Your task to perform on an android device: Add "panasonic triple a" to the cart on target.com Image 0: 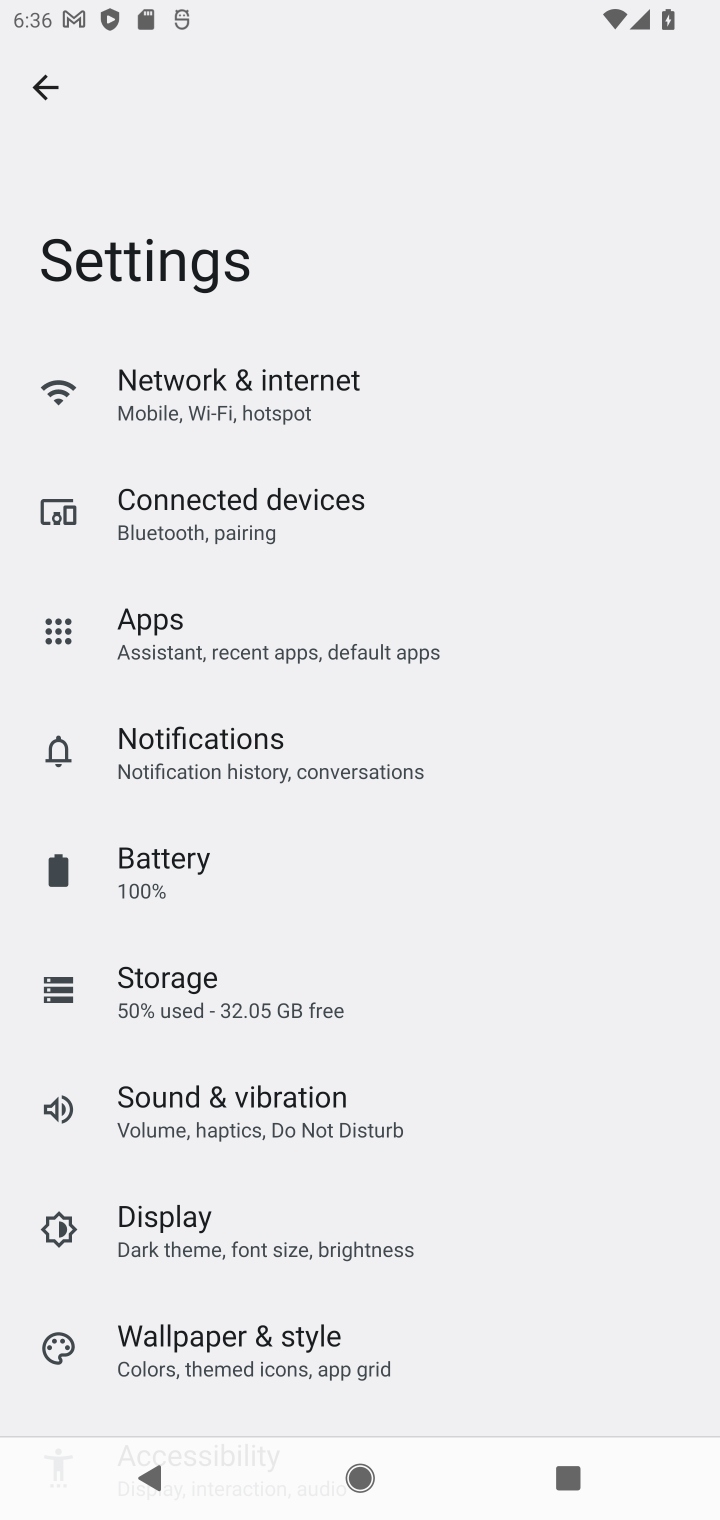
Step 0: press home button
Your task to perform on an android device: Add "panasonic triple a" to the cart on target.com Image 1: 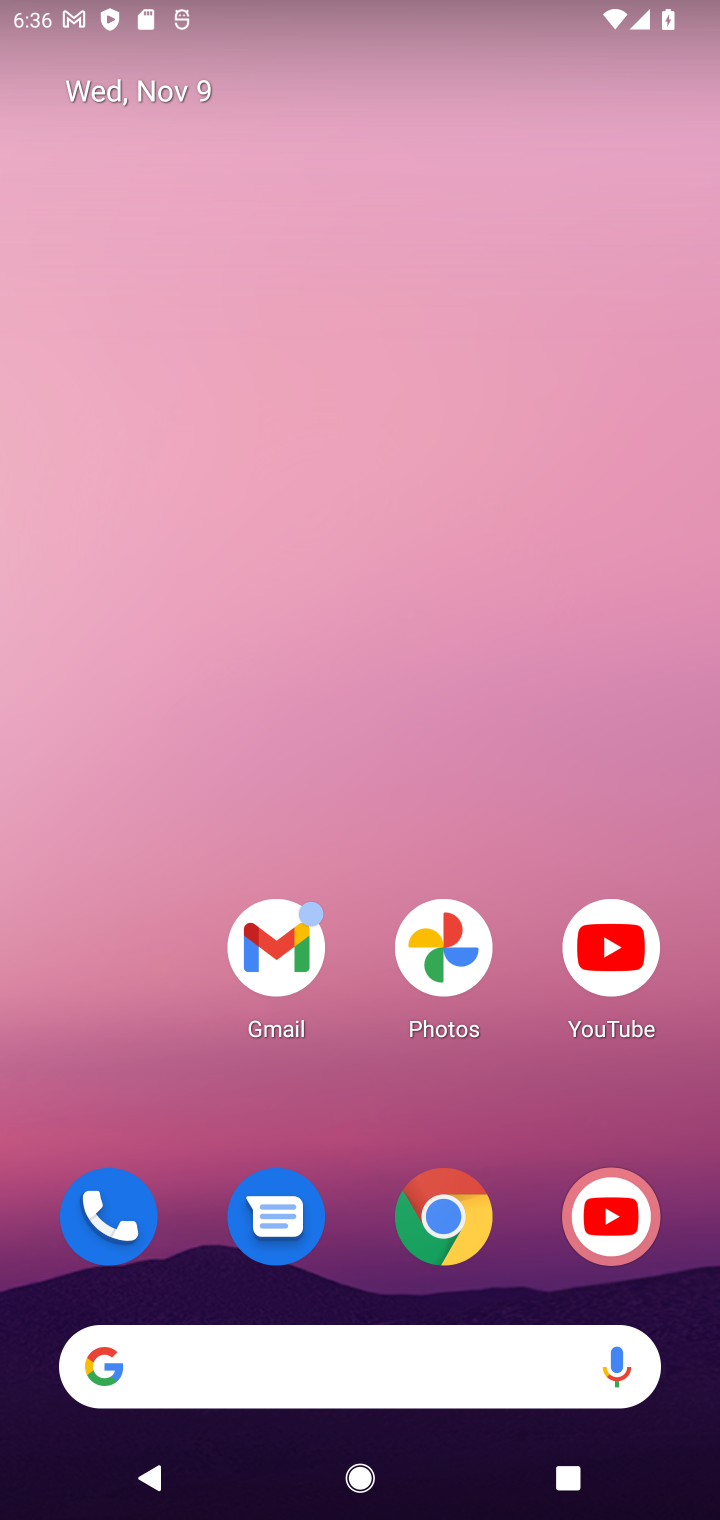
Step 1: drag from (364, 1133) to (366, 223)
Your task to perform on an android device: Add "panasonic triple a" to the cart on target.com Image 2: 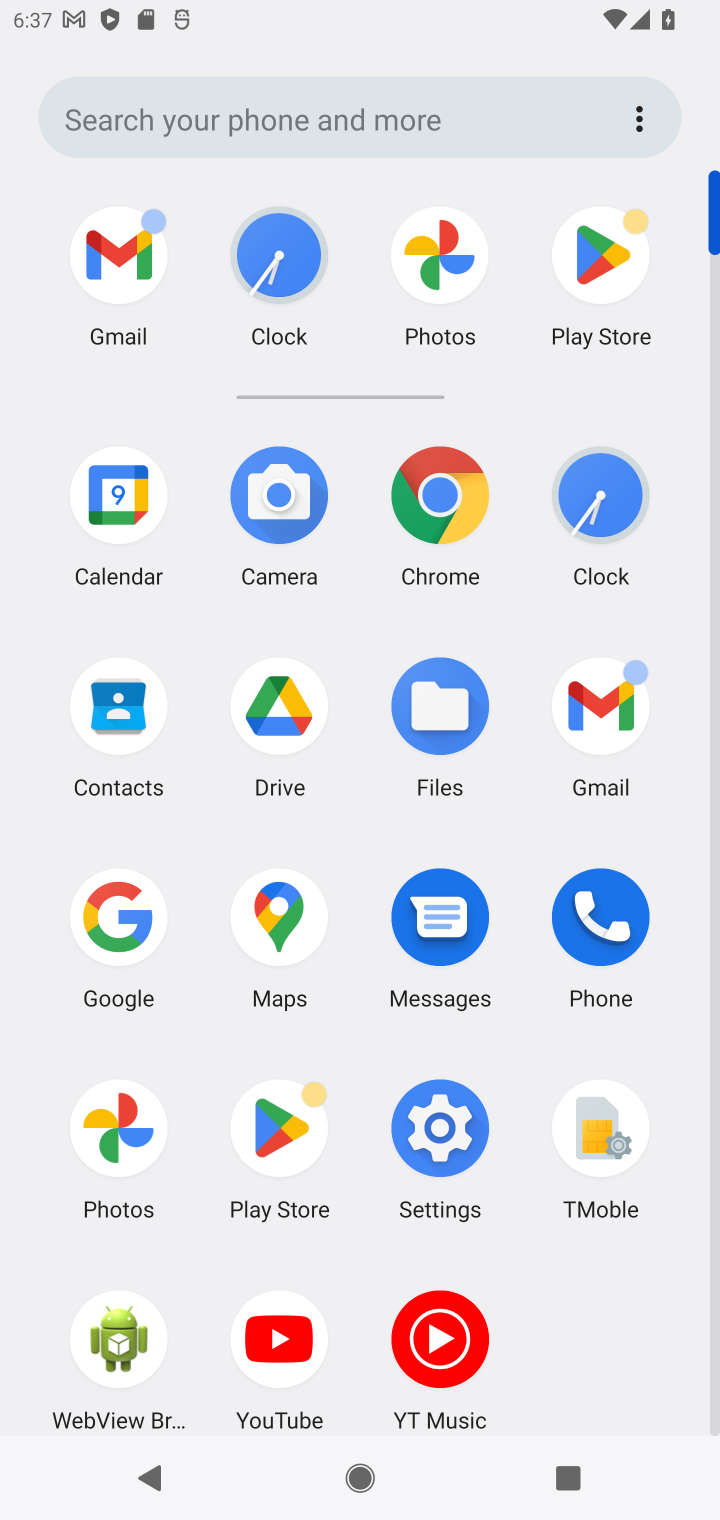
Step 2: click (446, 499)
Your task to perform on an android device: Add "panasonic triple a" to the cart on target.com Image 3: 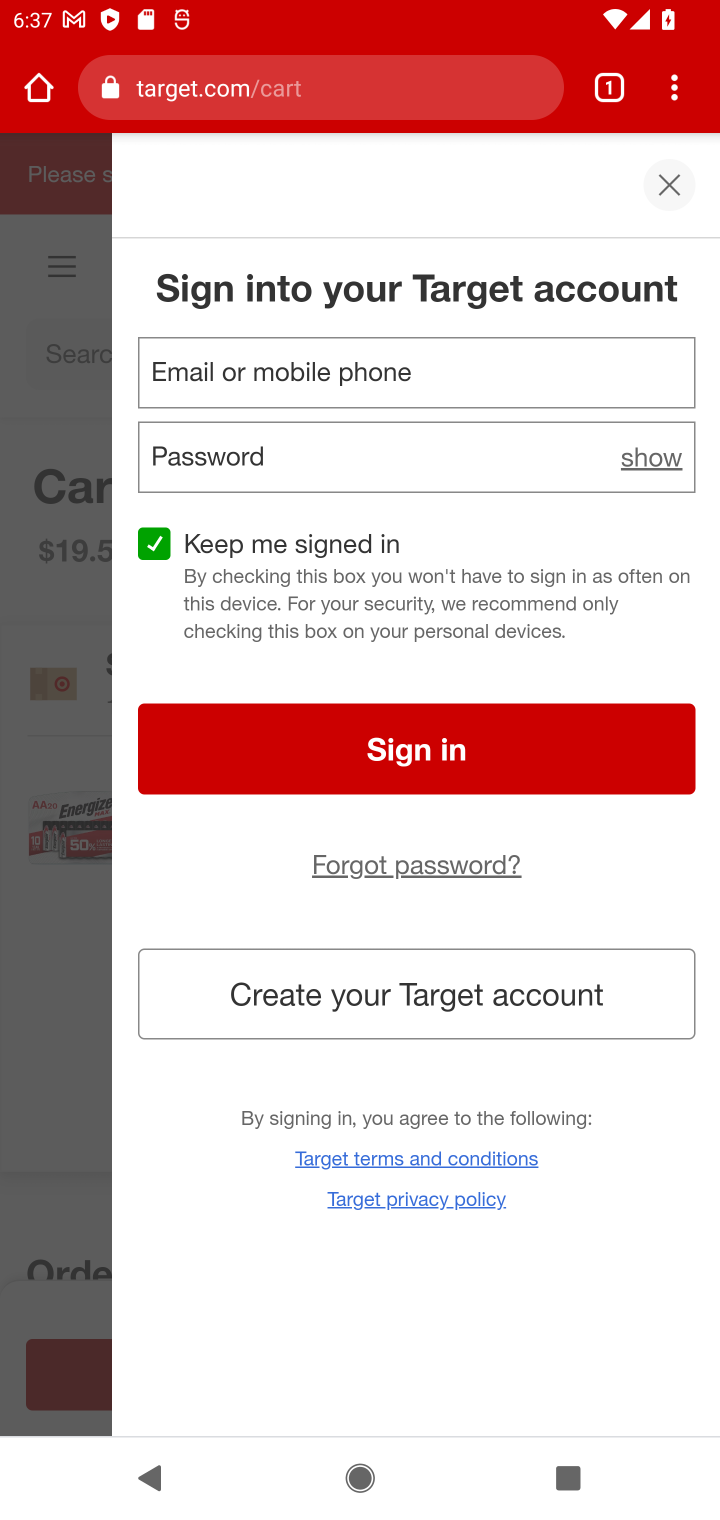
Step 3: click (434, 88)
Your task to perform on an android device: Add "panasonic triple a" to the cart on target.com Image 4: 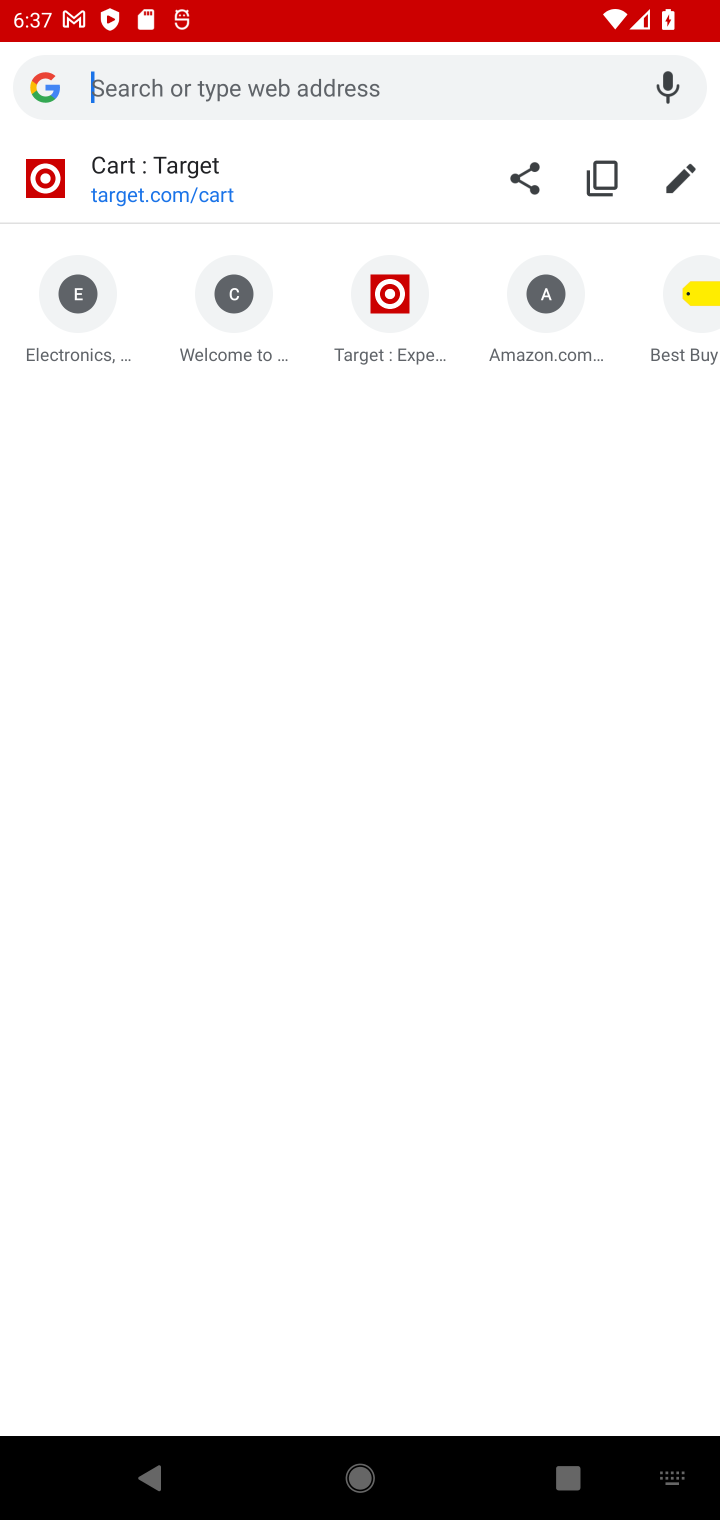
Step 4: type "target.com"
Your task to perform on an android device: Add "panasonic triple a" to the cart on target.com Image 5: 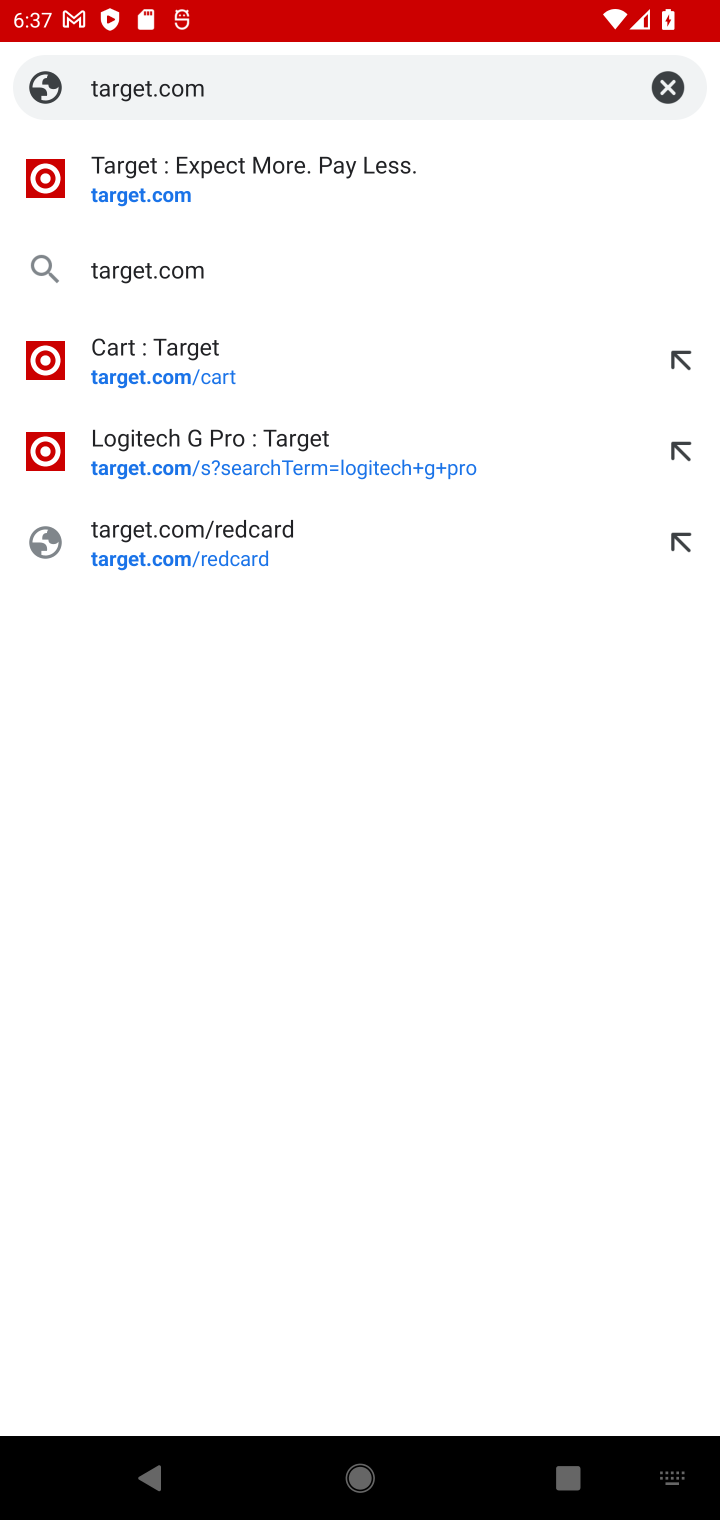
Step 5: press enter
Your task to perform on an android device: Add "panasonic triple a" to the cart on target.com Image 6: 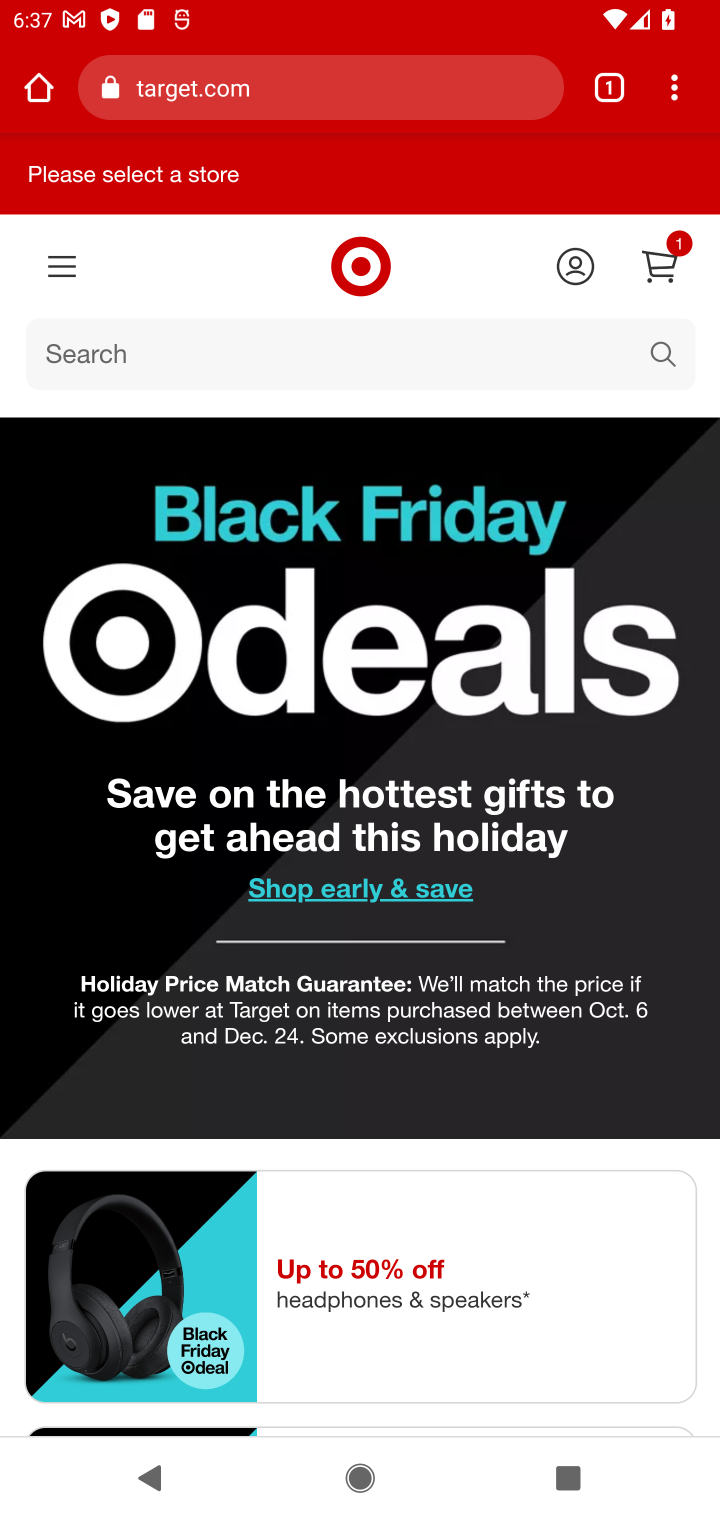
Step 6: click (458, 352)
Your task to perform on an android device: Add "panasonic triple a" to the cart on target.com Image 7: 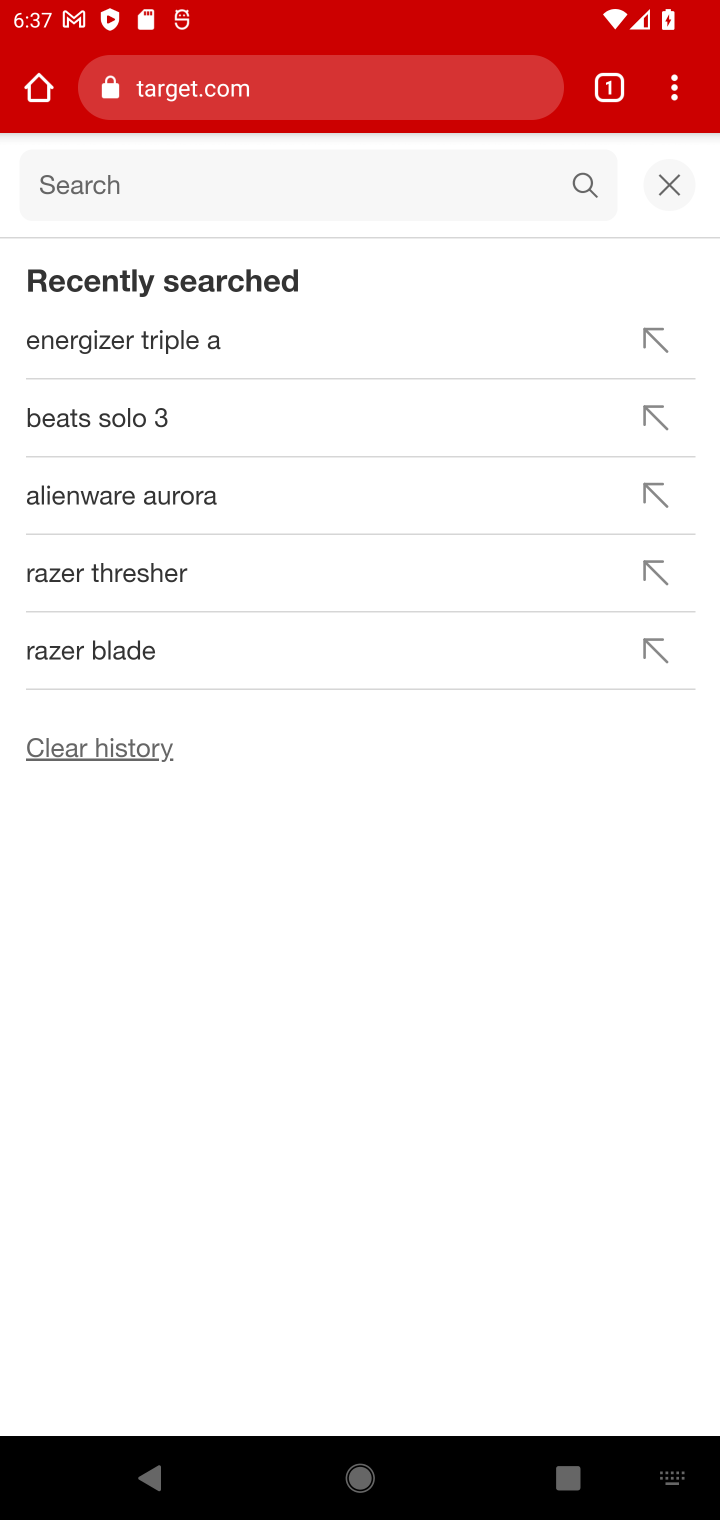
Step 7: type "panasonic triple a"
Your task to perform on an android device: Add "panasonic triple a" to the cart on target.com Image 8: 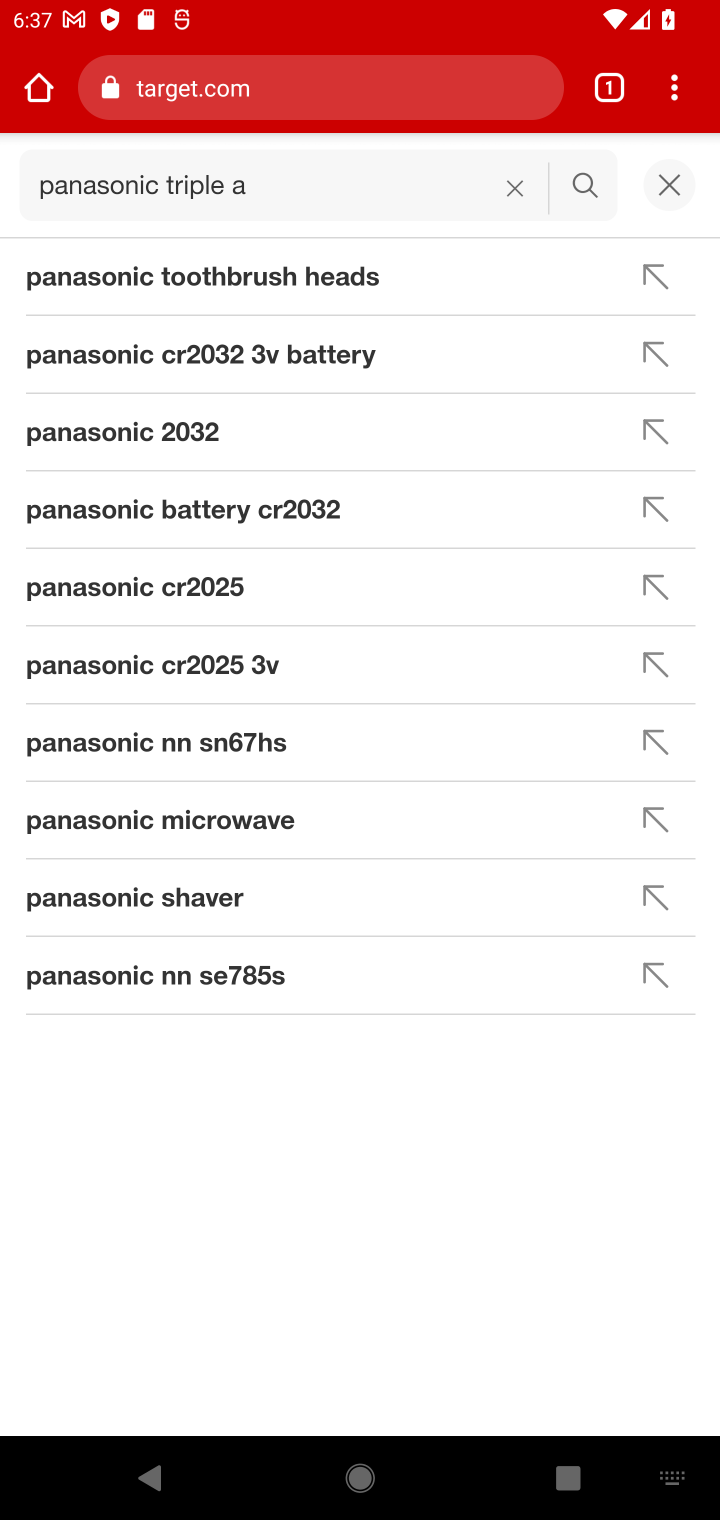
Step 8: press enter
Your task to perform on an android device: Add "panasonic triple a" to the cart on target.com Image 9: 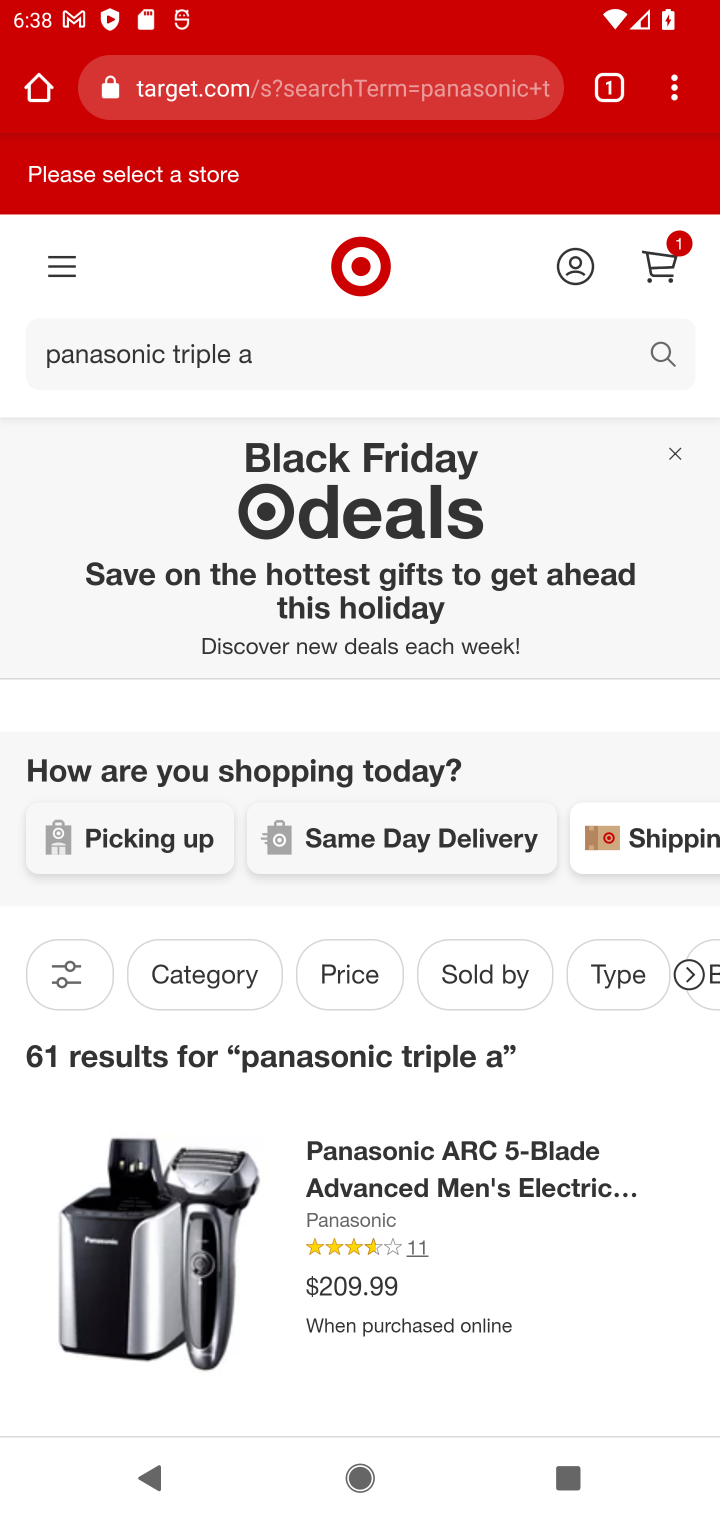
Step 9: drag from (506, 1129) to (411, 449)
Your task to perform on an android device: Add "panasonic triple a" to the cart on target.com Image 10: 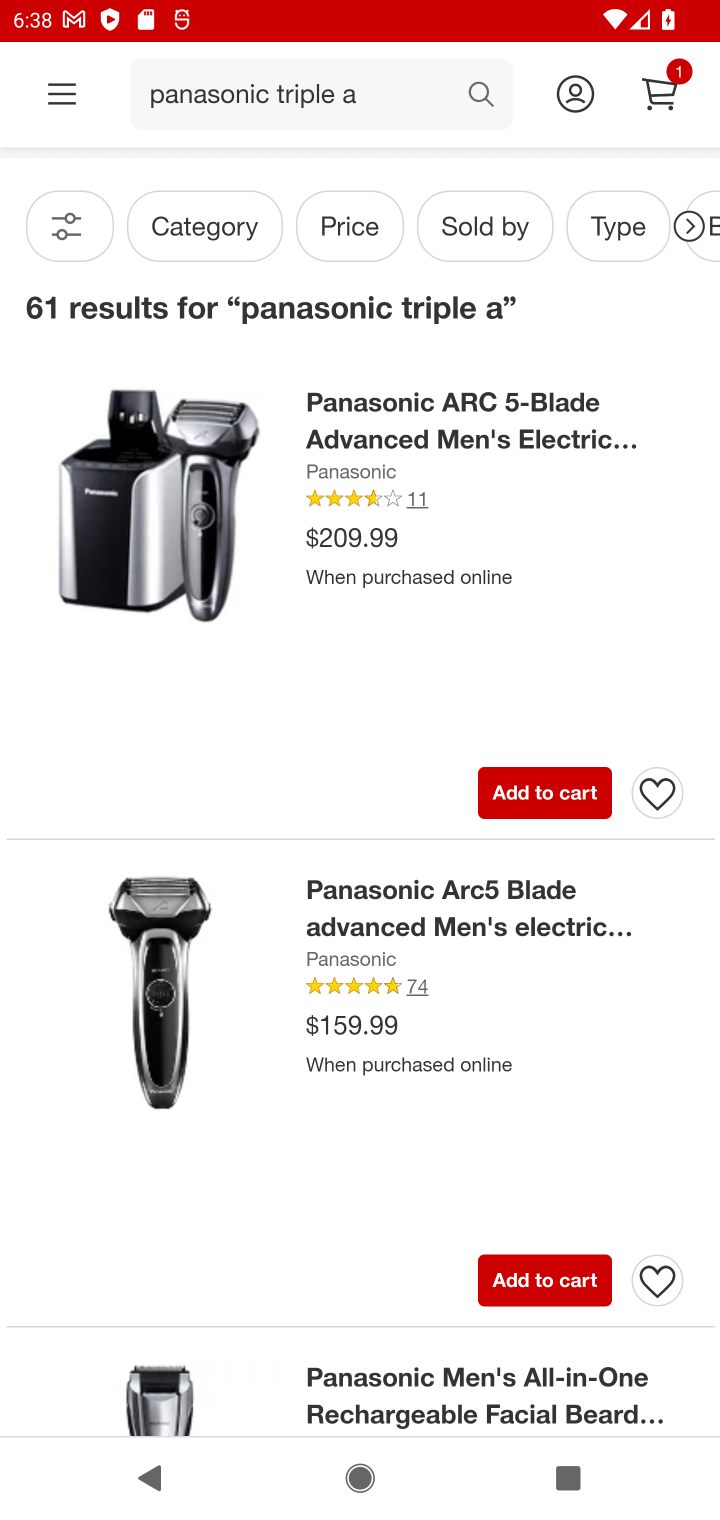
Step 10: click (365, 1084)
Your task to perform on an android device: Add "panasonic triple a" to the cart on target.com Image 11: 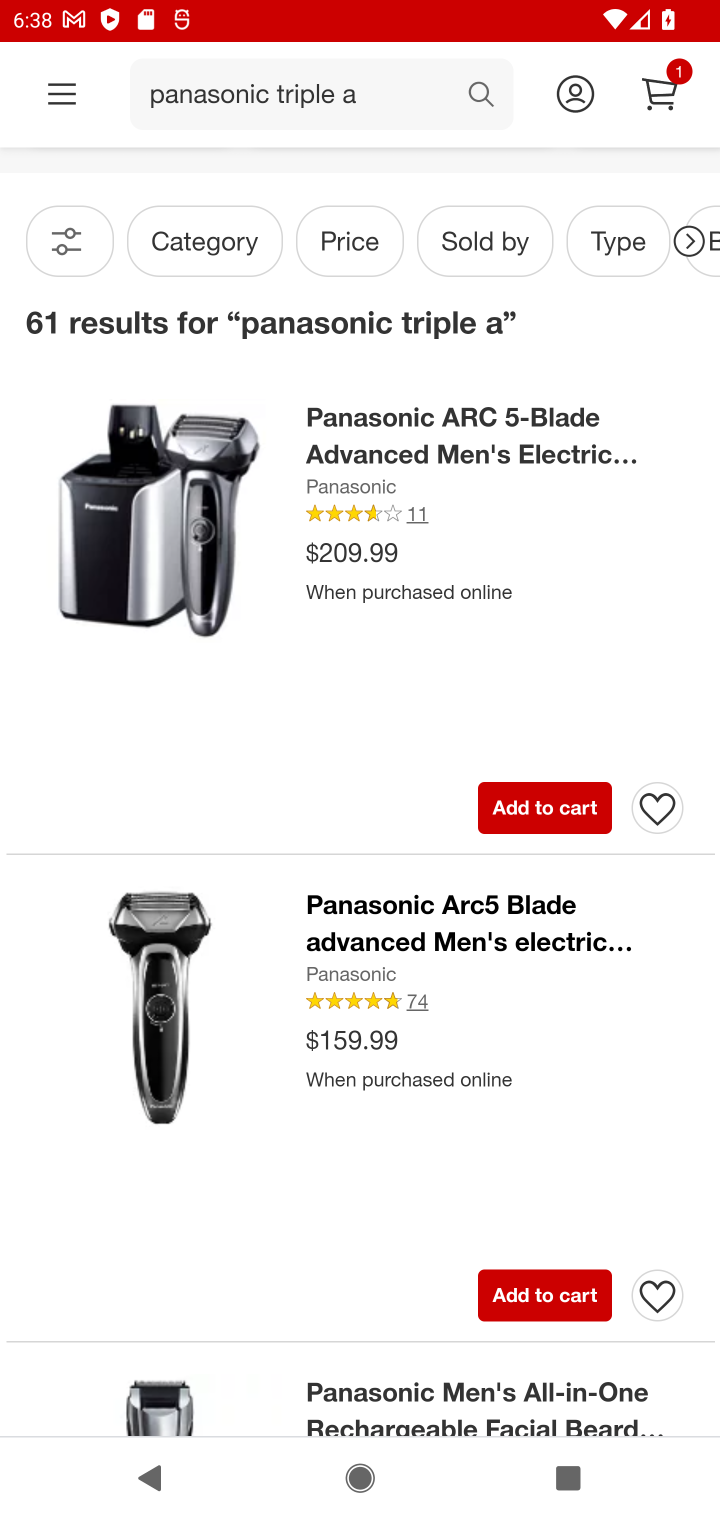
Step 11: task complete